Your task to perform on an android device: Open settings Image 0: 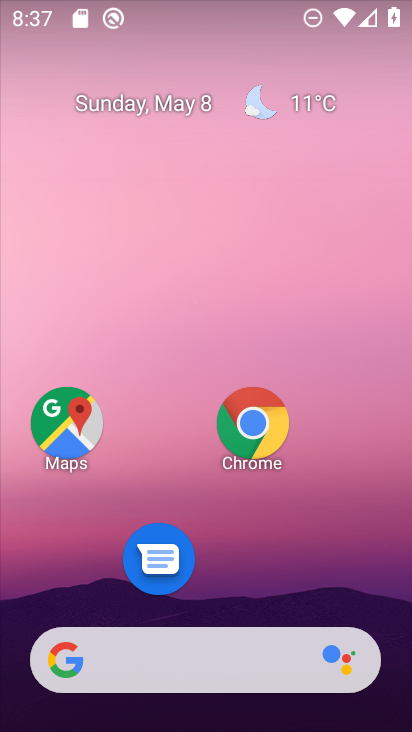
Step 0: drag from (329, 546) to (366, 18)
Your task to perform on an android device: Open settings Image 1: 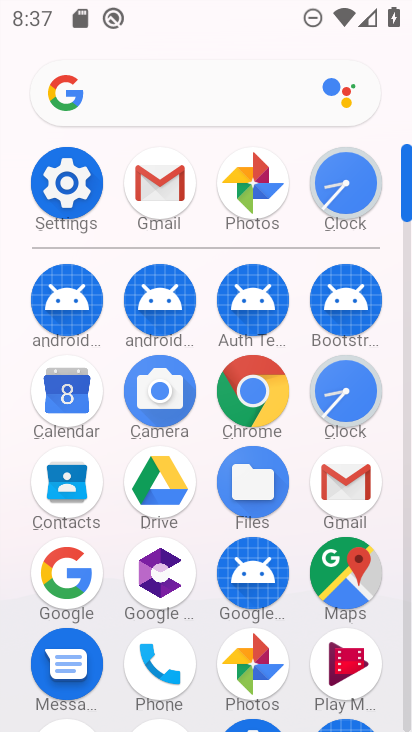
Step 1: click (62, 184)
Your task to perform on an android device: Open settings Image 2: 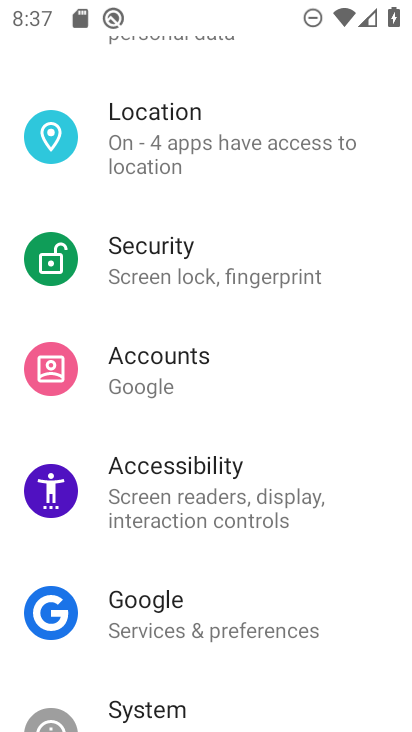
Step 2: task complete